Your task to perform on an android device: Go to location settings Image 0: 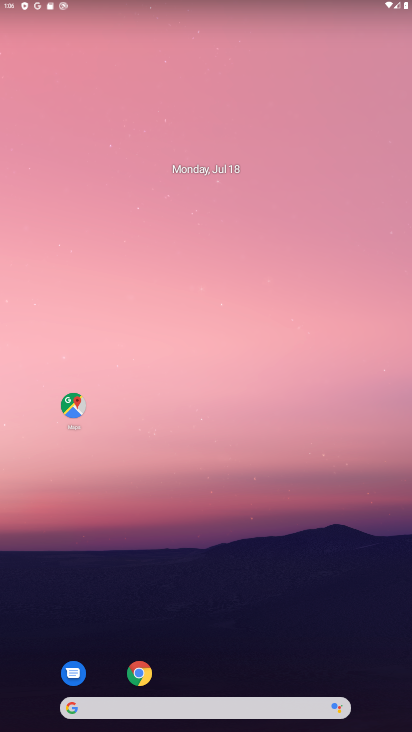
Step 0: drag from (369, 507) to (357, 132)
Your task to perform on an android device: Go to location settings Image 1: 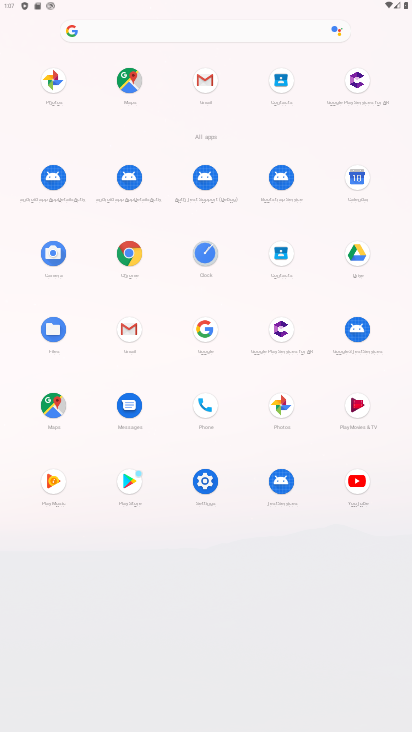
Step 1: click (197, 480)
Your task to perform on an android device: Go to location settings Image 2: 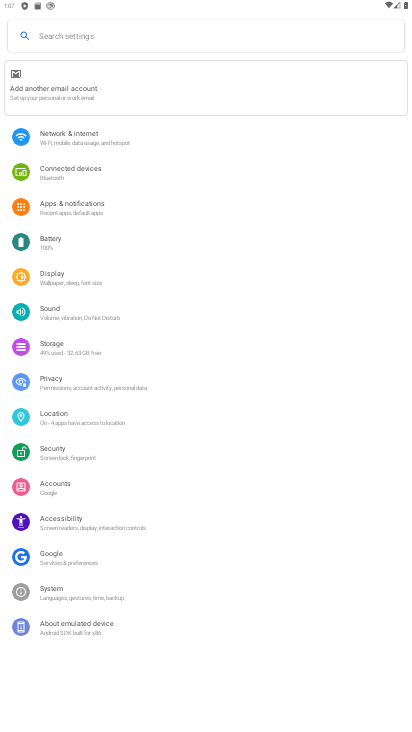
Step 2: click (55, 419)
Your task to perform on an android device: Go to location settings Image 3: 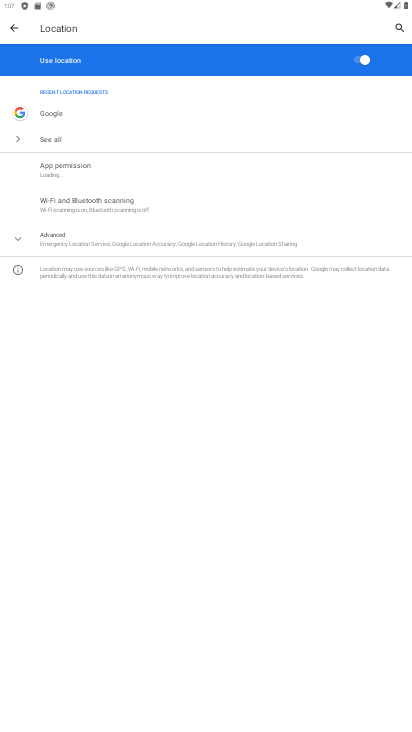
Step 3: click (14, 241)
Your task to perform on an android device: Go to location settings Image 4: 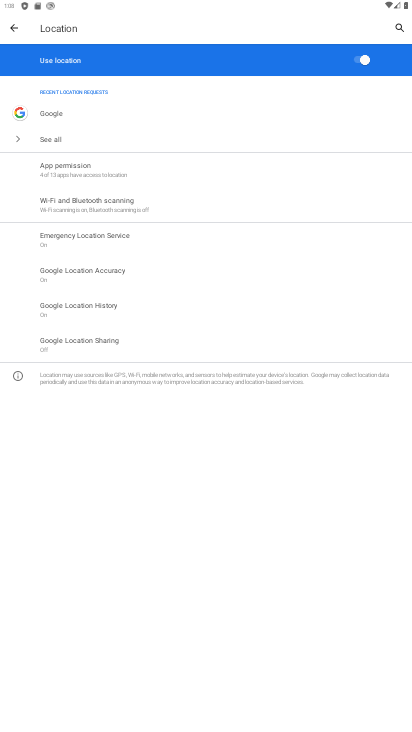
Step 4: task complete